Your task to perform on an android device: Open eBay Image 0: 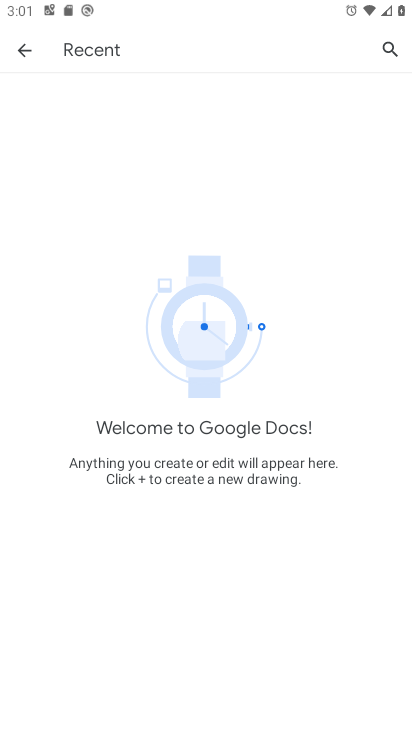
Step 0: press home button
Your task to perform on an android device: Open eBay Image 1: 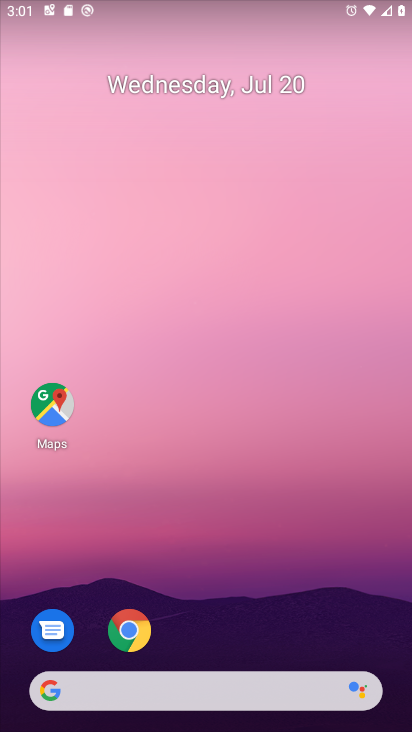
Step 1: drag from (248, 684) to (263, 259)
Your task to perform on an android device: Open eBay Image 2: 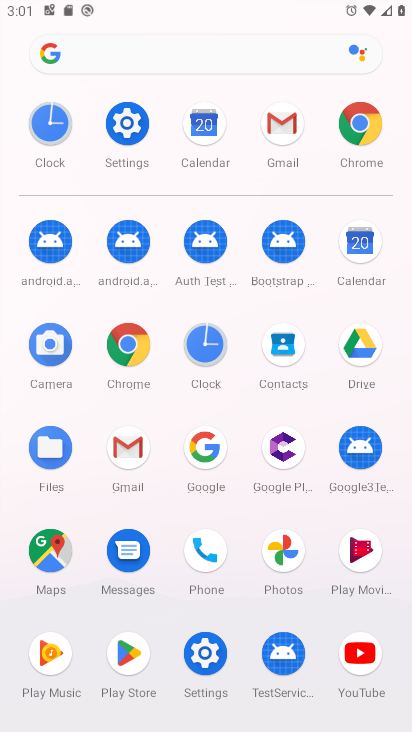
Step 2: click (125, 353)
Your task to perform on an android device: Open eBay Image 3: 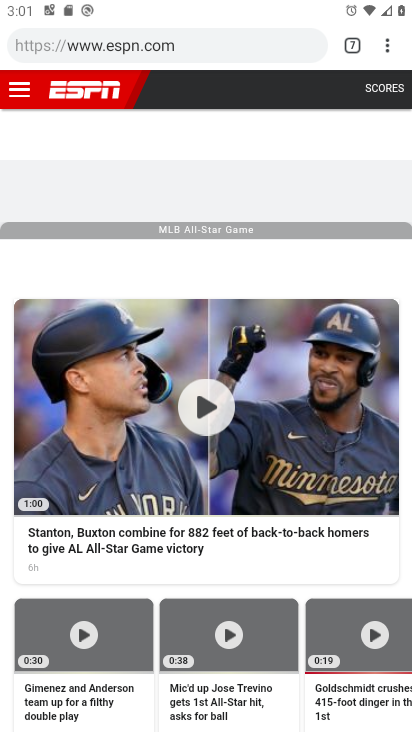
Step 3: click (235, 47)
Your task to perform on an android device: Open eBay Image 4: 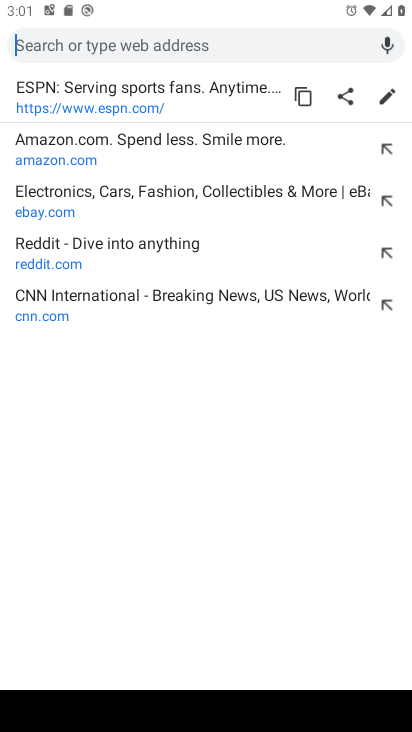
Step 4: click (222, 202)
Your task to perform on an android device: Open eBay Image 5: 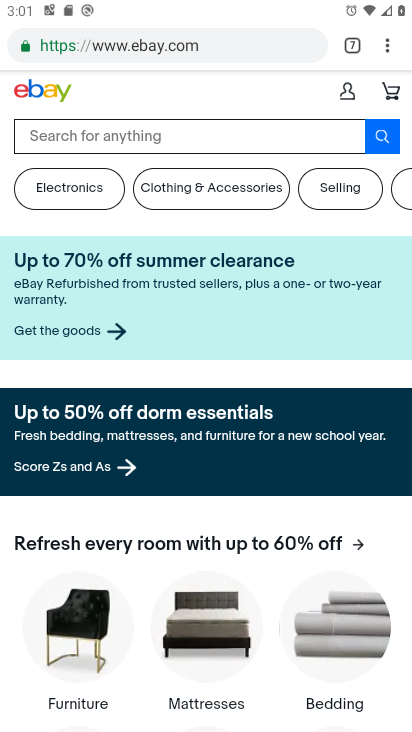
Step 5: task complete